Your task to perform on an android device: Open Youtube and go to "Your channel" Image 0: 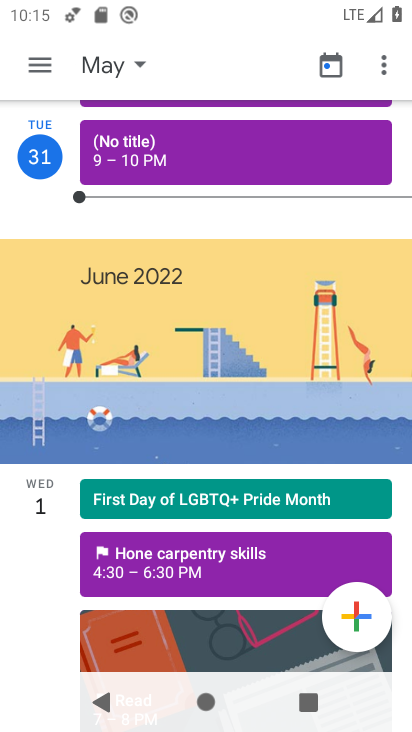
Step 0: press home button
Your task to perform on an android device: Open Youtube and go to "Your channel" Image 1: 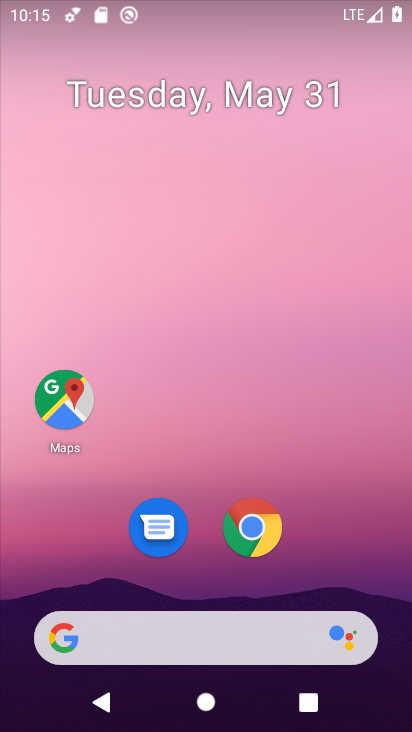
Step 1: drag from (370, 604) to (370, 49)
Your task to perform on an android device: Open Youtube and go to "Your channel" Image 2: 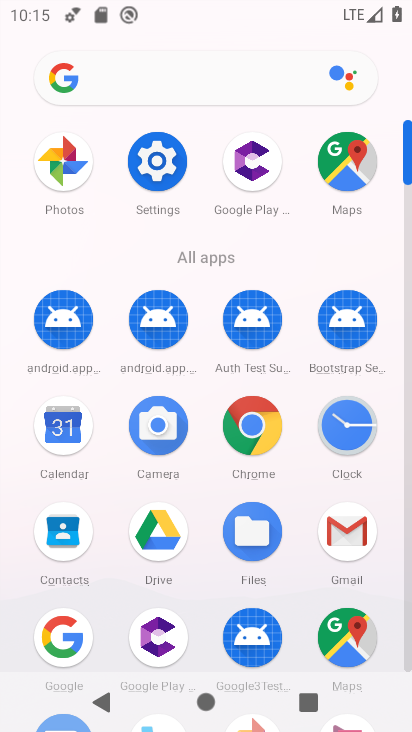
Step 2: click (406, 546)
Your task to perform on an android device: Open Youtube and go to "Your channel" Image 3: 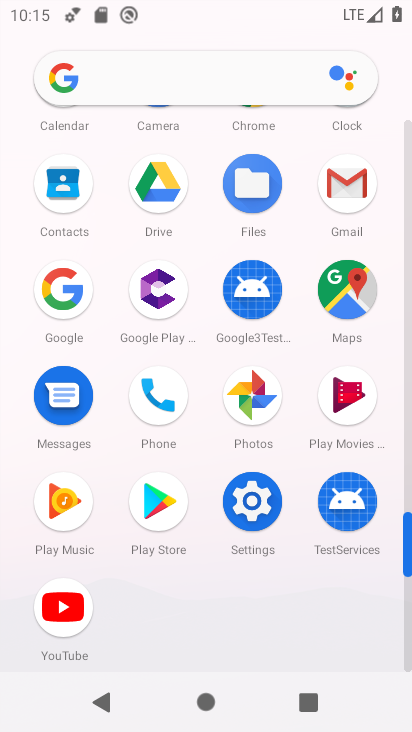
Step 3: click (53, 615)
Your task to perform on an android device: Open Youtube and go to "Your channel" Image 4: 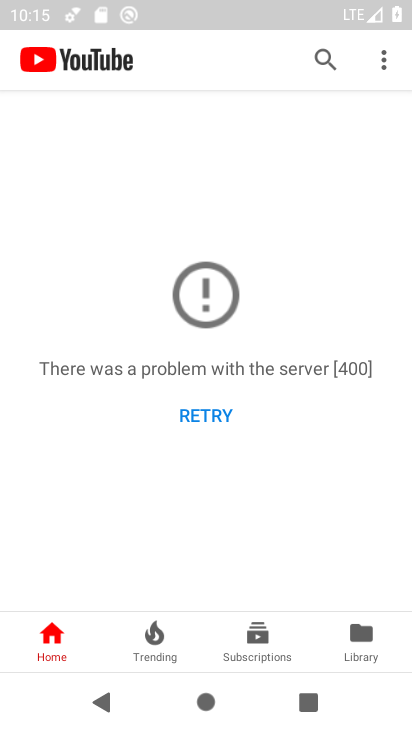
Step 4: click (197, 417)
Your task to perform on an android device: Open Youtube and go to "Your channel" Image 5: 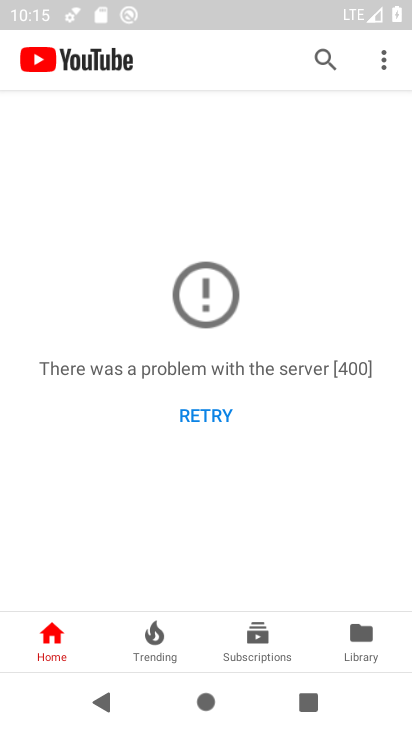
Step 5: click (197, 417)
Your task to perform on an android device: Open Youtube and go to "Your channel" Image 6: 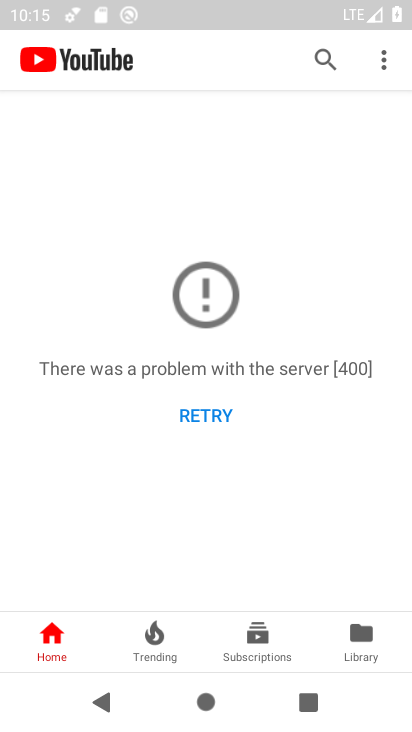
Step 6: click (197, 417)
Your task to perform on an android device: Open Youtube and go to "Your channel" Image 7: 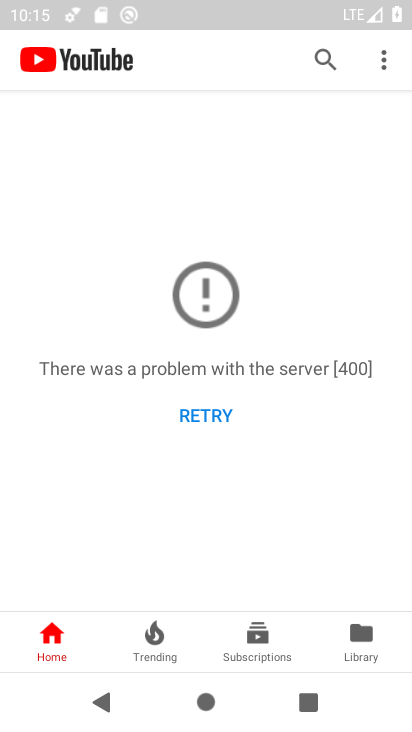
Step 7: click (381, 69)
Your task to perform on an android device: Open Youtube and go to "Your channel" Image 8: 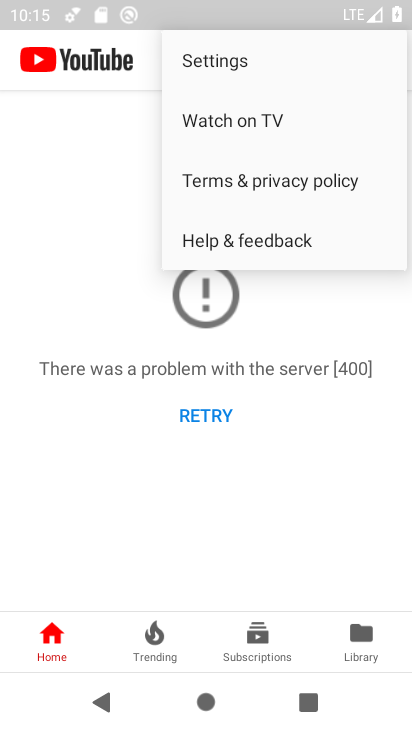
Step 8: task complete